Your task to perform on an android device: toggle show notifications on the lock screen Image 0: 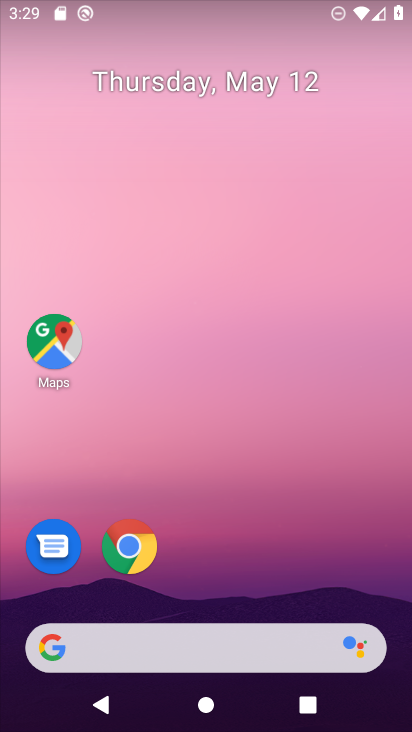
Step 0: drag from (289, 585) to (313, 261)
Your task to perform on an android device: toggle show notifications on the lock screen Image 1: 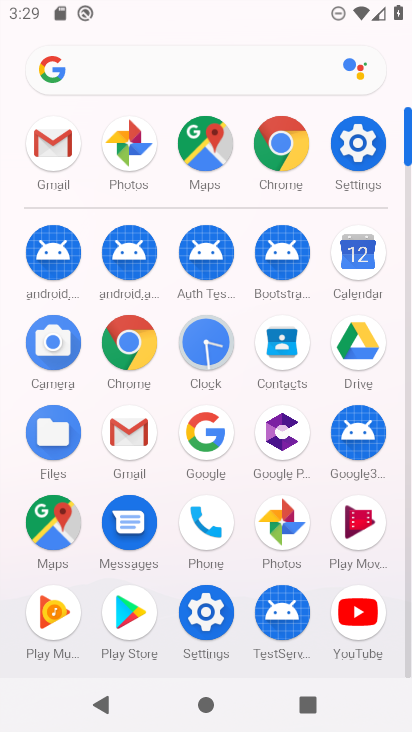
Step 1: click (357, 142)
Your task to perform on an android device: toggle show notifications on the lock screen Image 2: 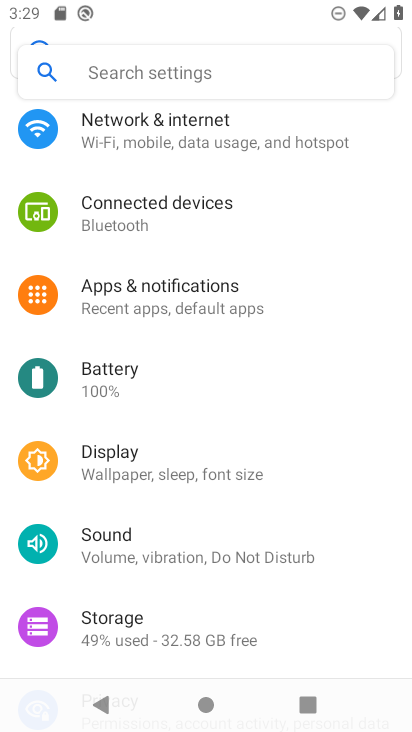
Step 2: click (152, 288)
Your task to perform on an android device: toggle show notifications on the lock screen Image 3: 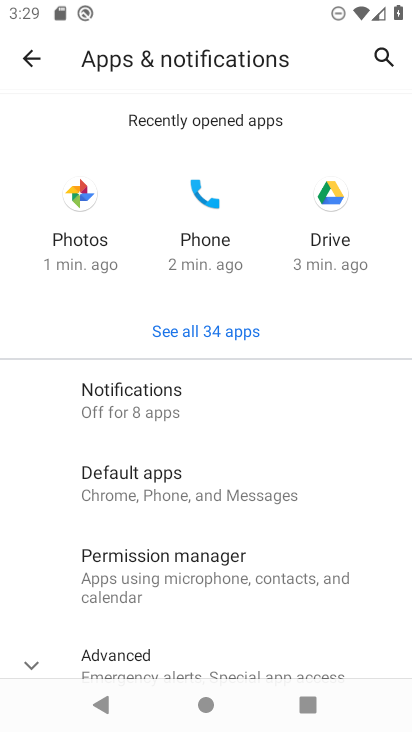
Step 3: click (159, 398)
Your task to perform on an android device: toggle show notifications on the lock screen Image 4: 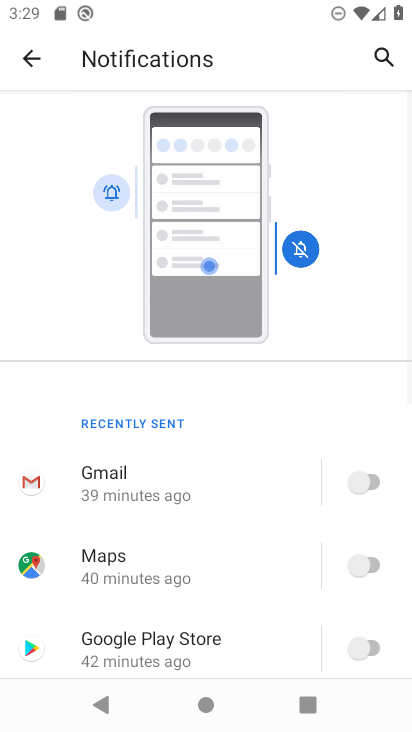
Step 4: drag from (175, 614) to (272, 241)
Your task to perform on an android device: toggle show notifications on the lock screen Image 5: 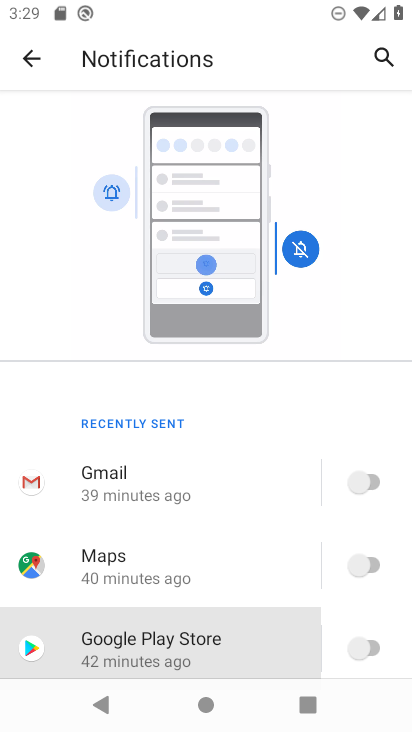
Step 5: drag from (241, 482) to (306, 165)
Your task to perform on an android device: toggle show notifications on the lock screen Image 6: 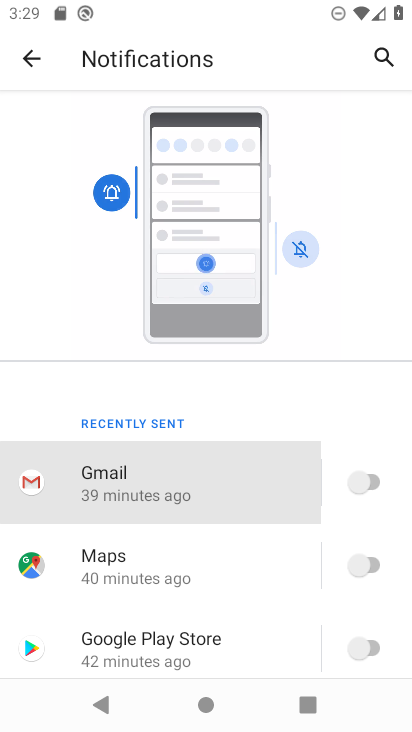
Step 6: drag from (246, 373) to (310, 159)
Your task to perform on an android device: toggle show notifications on the lock screen Image 7: 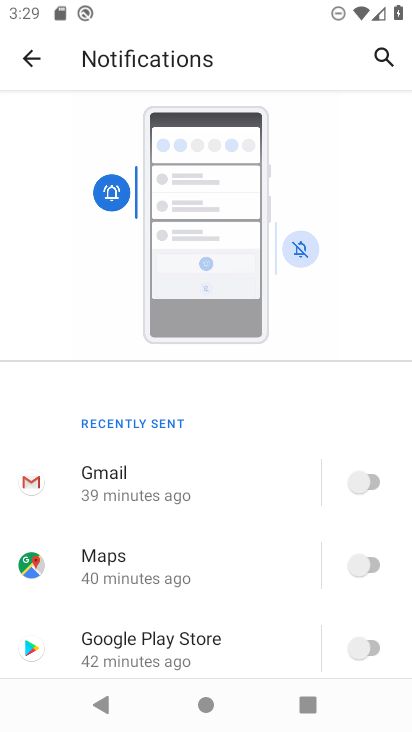
Step 7: click (359, 195)
Your task to perform on an android device: toggle show notifications on the lock screen Image 8: 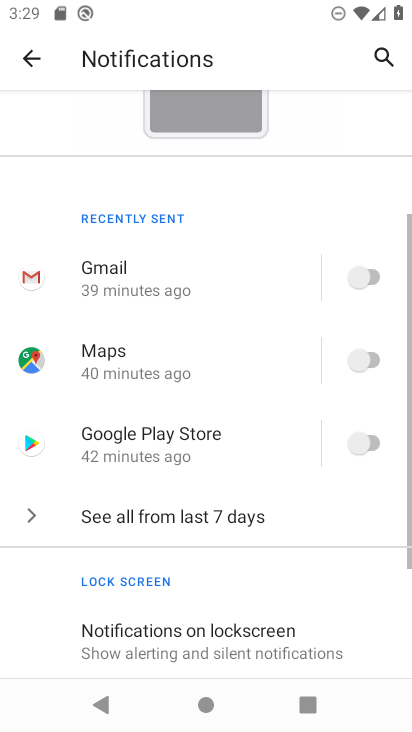
Step 8: drag from (270, 547) to (330, 213)
Your task to perform on an android device: toggle show notifications on the lock screen Image 9: 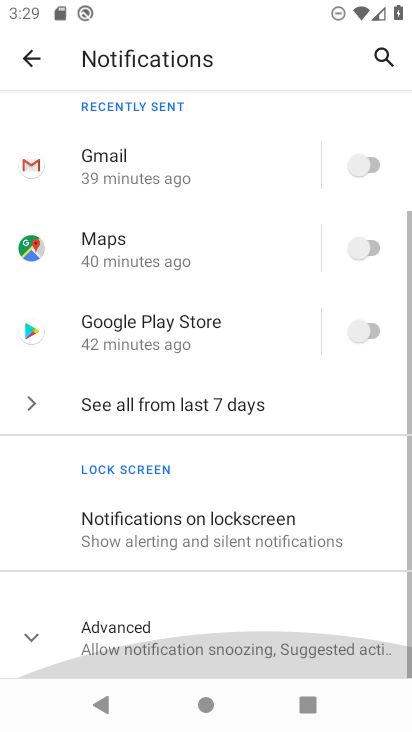
Step 9: drag from (212, 599) to (290, 253)
Your task to perform on an android device: toggle show notifications on the lock screen Image 10: 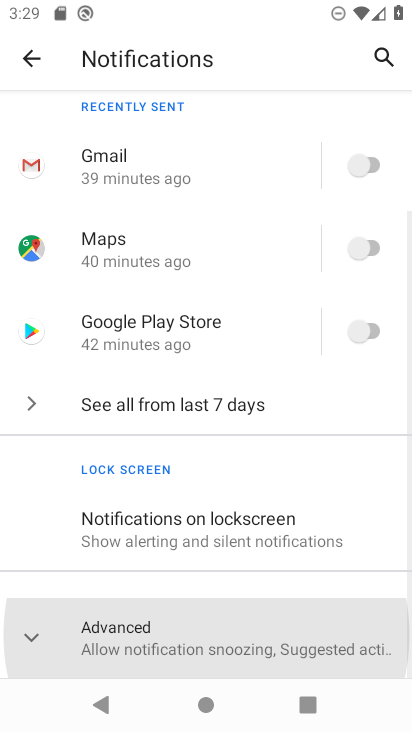
Step 10: drag from (192, 612) to (267, 321)
Your task to perform on an android device: toggle show notifications on the lock screen Image 11: 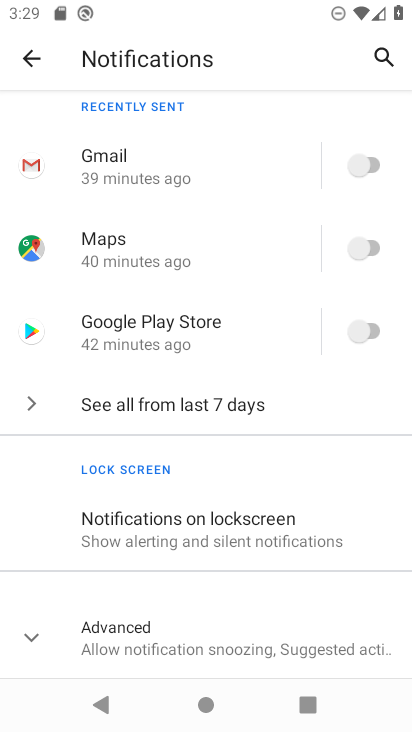
Step 11: click (165, 531)
Your task to perform on an android device: toggle show notifications on the lock screen Image 12: 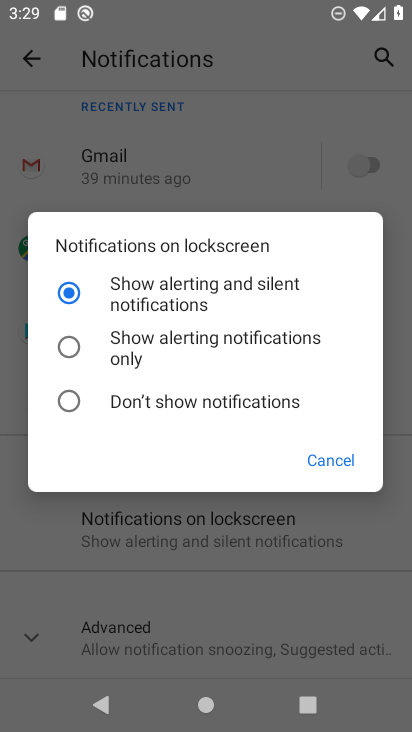
Step 12: click (124, 344)
Your task to perform on an android device: toggle show notifications on the lock screen Image 13: 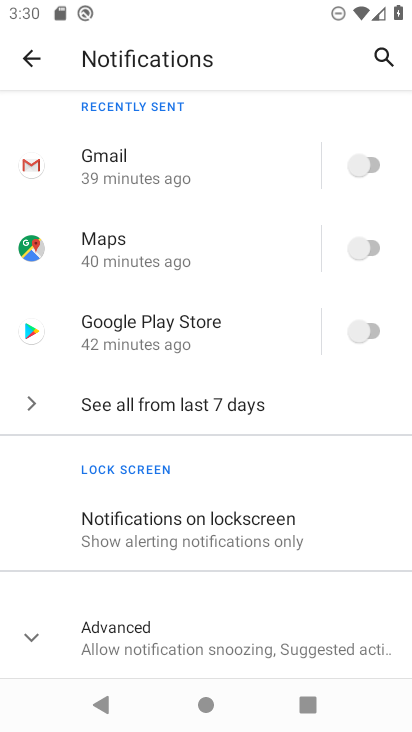
Step 13: task complete